Your task to perform on an android device: open a new tab in the chrome app Image 0: 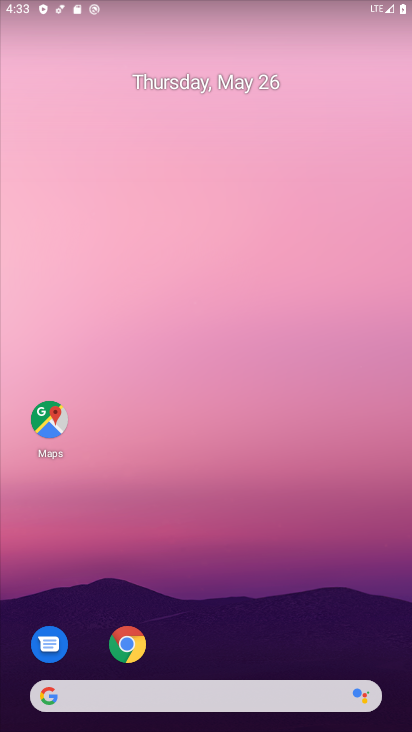
Step 0: drag from (241, 622) to (183, 65)
Your task to perform on an android device: open a new tab in the chrome app Image 1: 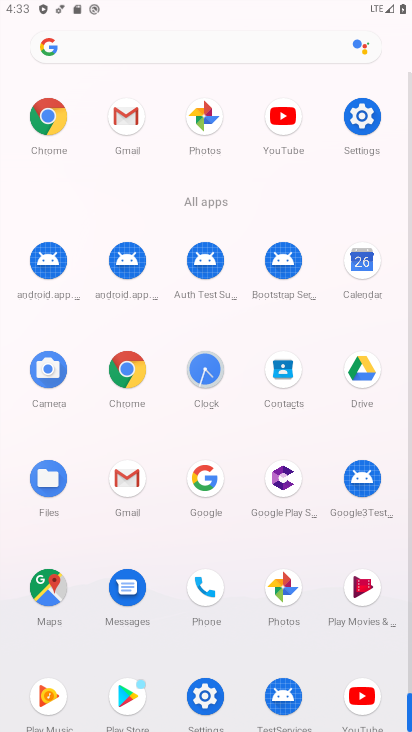
Step 1: drag from (12, 602) to (17, 271)
Your task to perform on an android device: open a new tab in the chrome app Image 2: 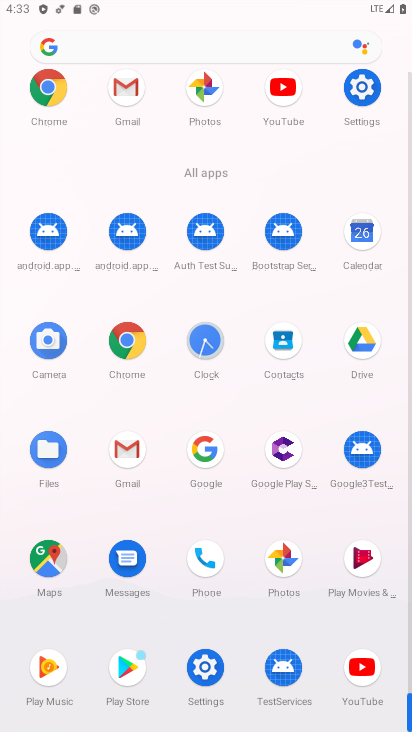
Step 2: click (122, 341)
Your task to perform on an android device: open a new tab in the chrome app Image 3: 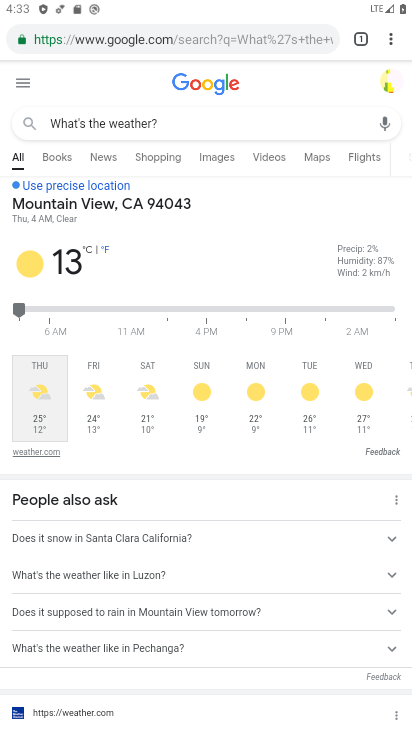
Step 3: task complete